Your task to perform on an android device: Go to Yahoo.com Image 0: 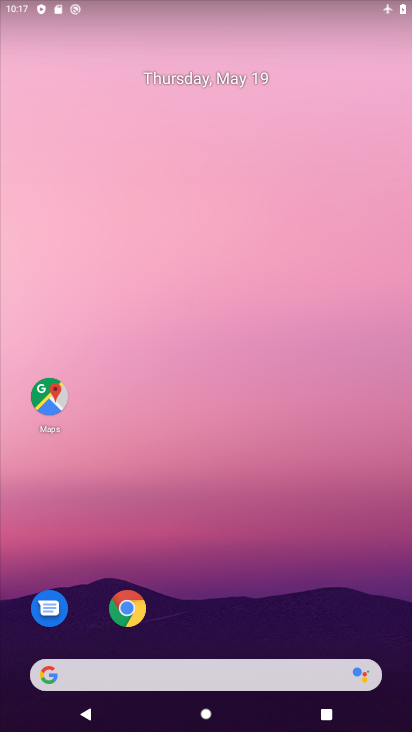
Step 0: click (132, 596)
Your task to perform on an android device: Go to Yahoo.com Image 1: 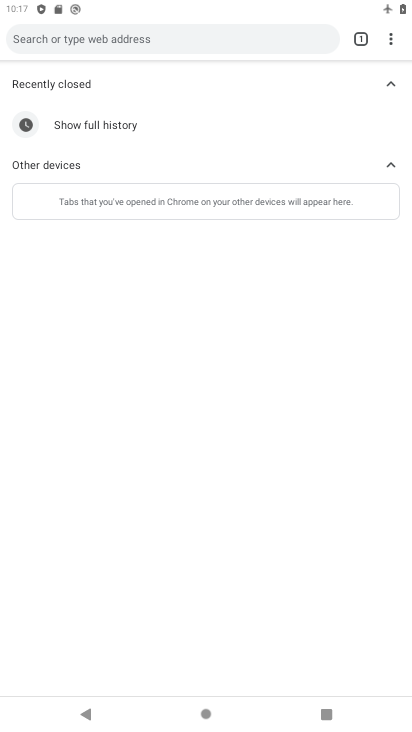
Step 1: click (170, 41)
Your task to perform on an android device: Go to Yahoo.com Image 2: 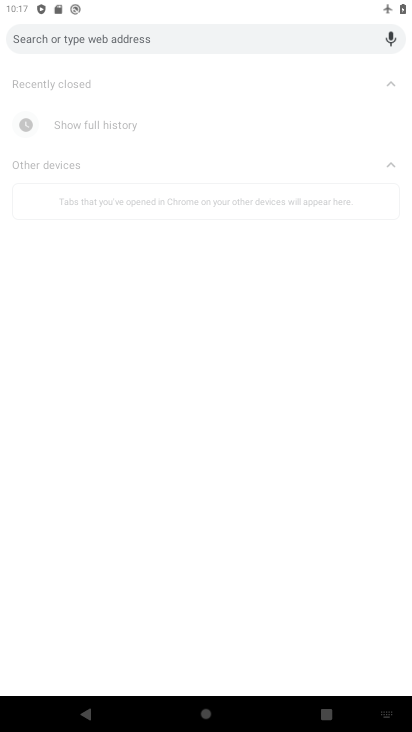
Step 2: click (150, 38)
Your task to perform on an android device: Go to Yahoo.com Image 3: 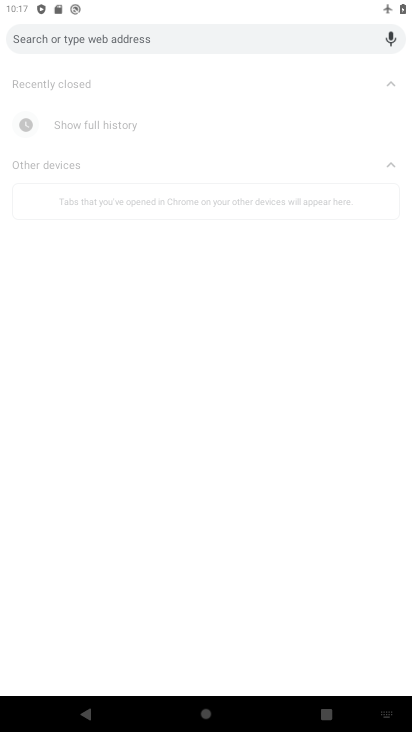
Step 3: type "Yahoo.com"
Your task to perform on an android device: Go to Yahoo.com Image 4: 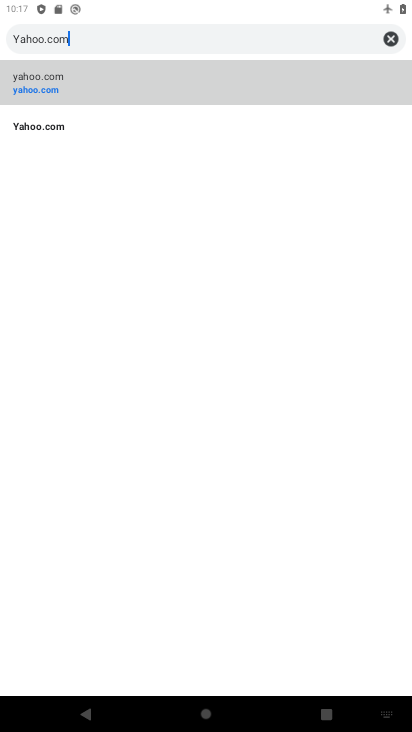
Step 4: click (51, 125)
Your task to perform on an android device: Go to Yahoo.com Image 5: 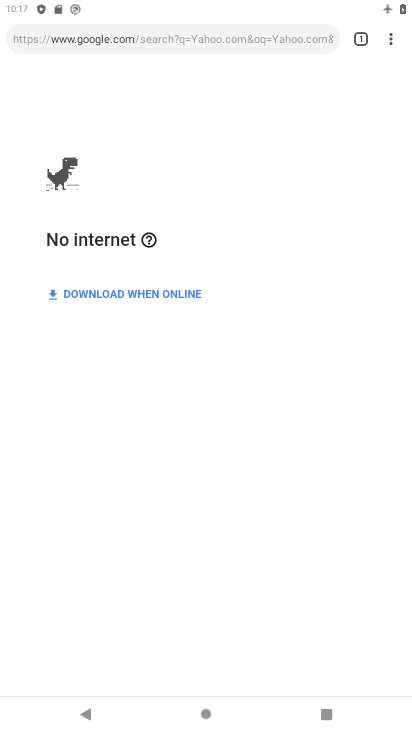
Step 5: task complete